Your task to perform on an android device: open app "Facebook Messenger" Image 0: 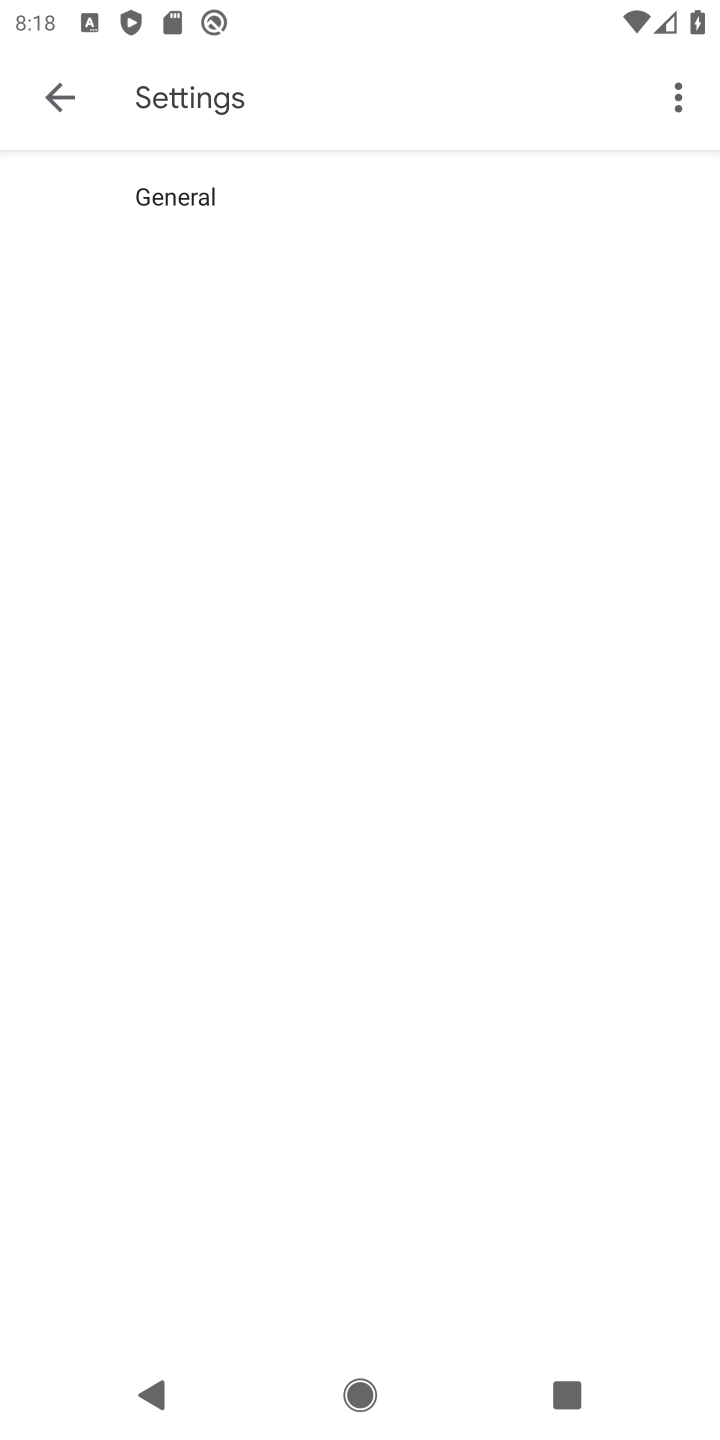
Step 0: press home button
Your task to perform on an android device: open app "Facebook Messenger" Image 1: 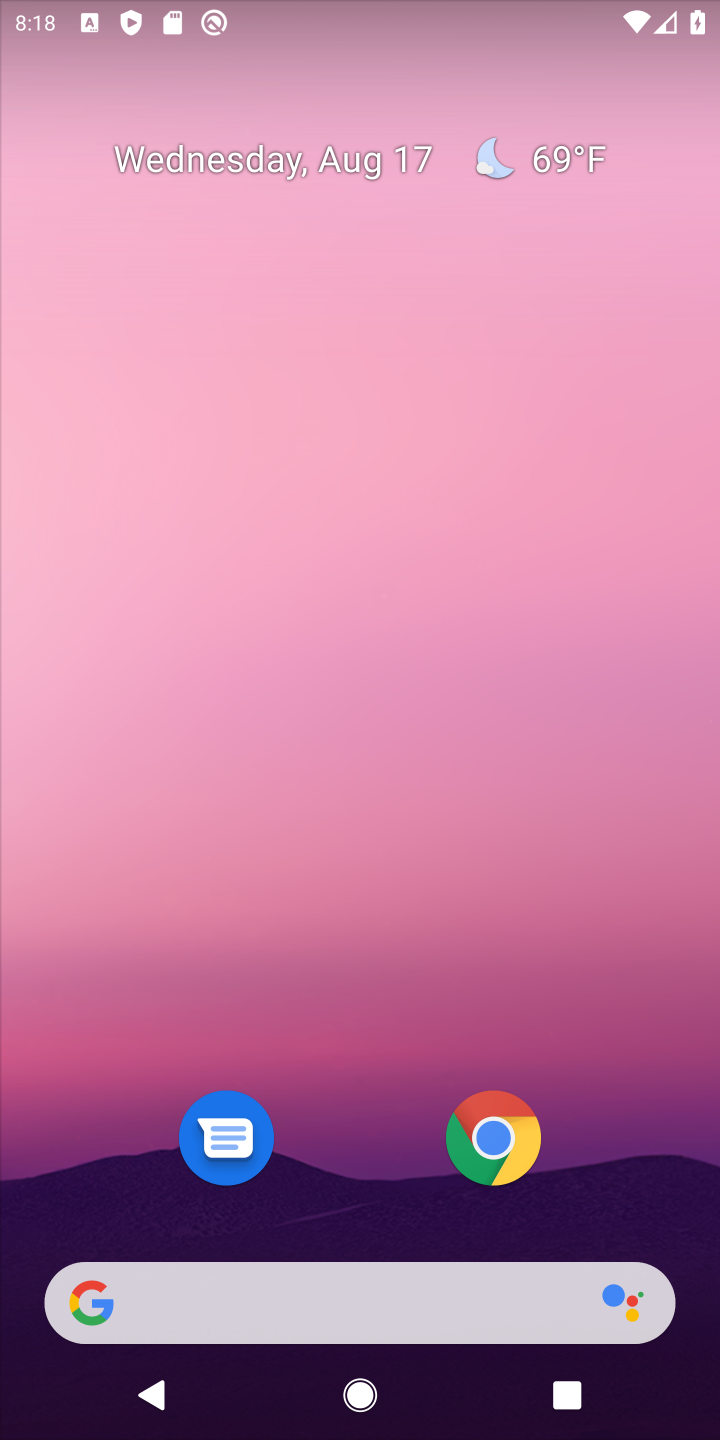
Step 1: drag from (332, 1038) to (315, 251)
Your task to perform on an android device: open app "Facebook Messenger" Image 2: 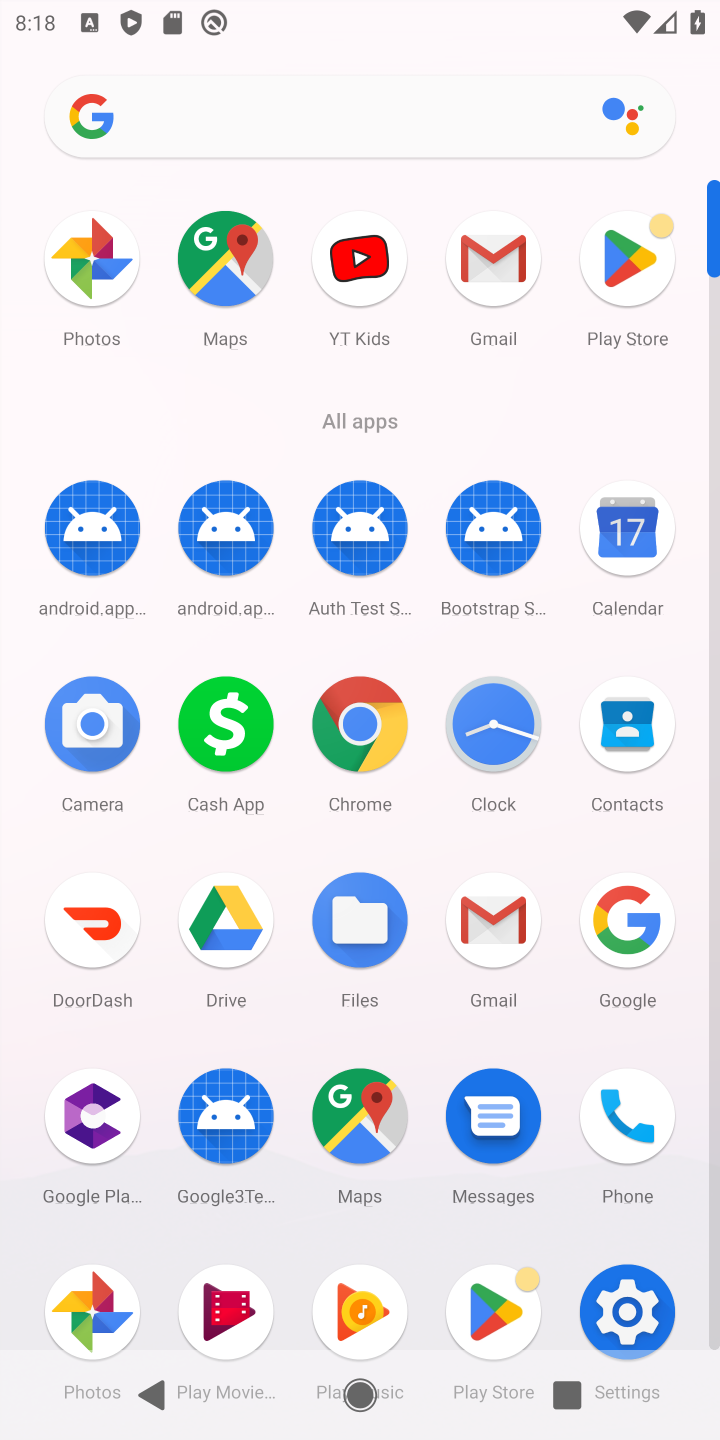
Step 2: click (639, 267)
Your task to perform on an android device: open app "Facebook Messenger" Image 3: 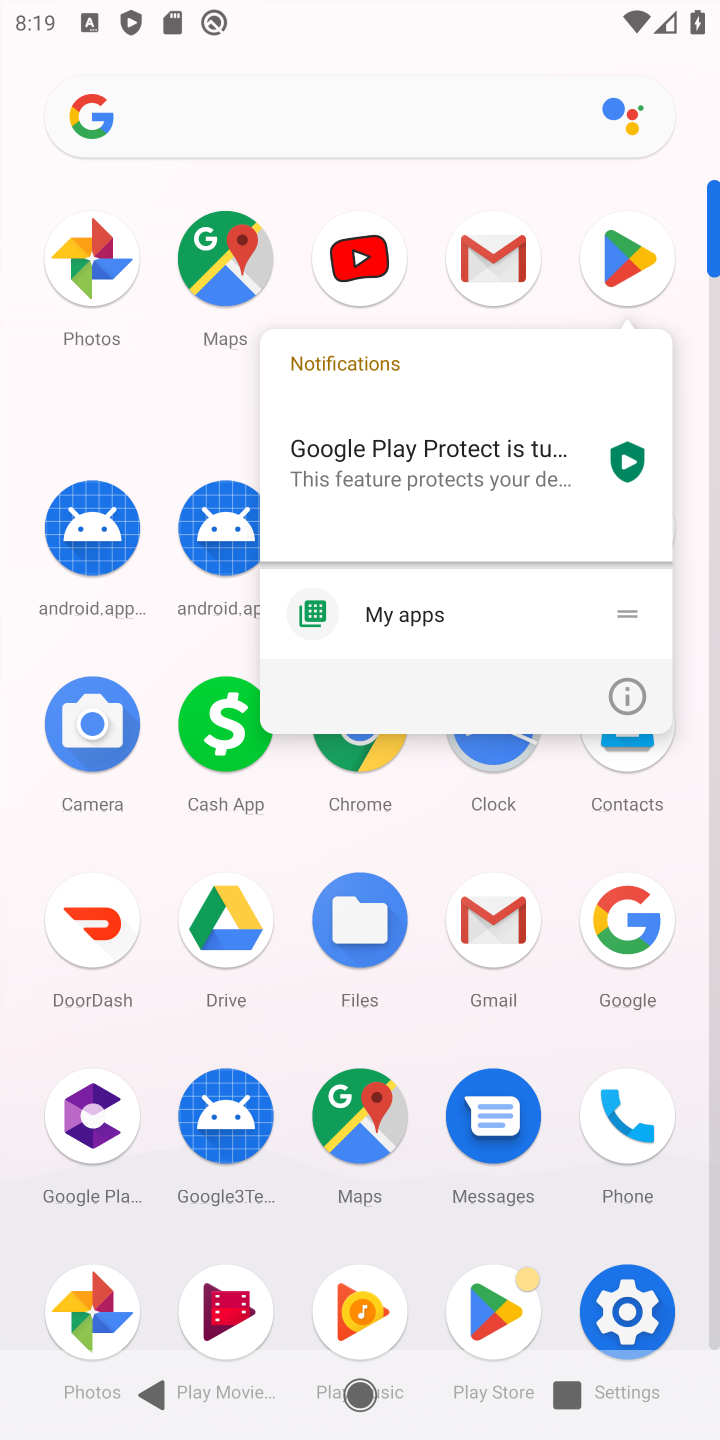
Step 3: click (619, 266)
Your task to perform on an android device: open app "Facebook Messenger" Image 4: 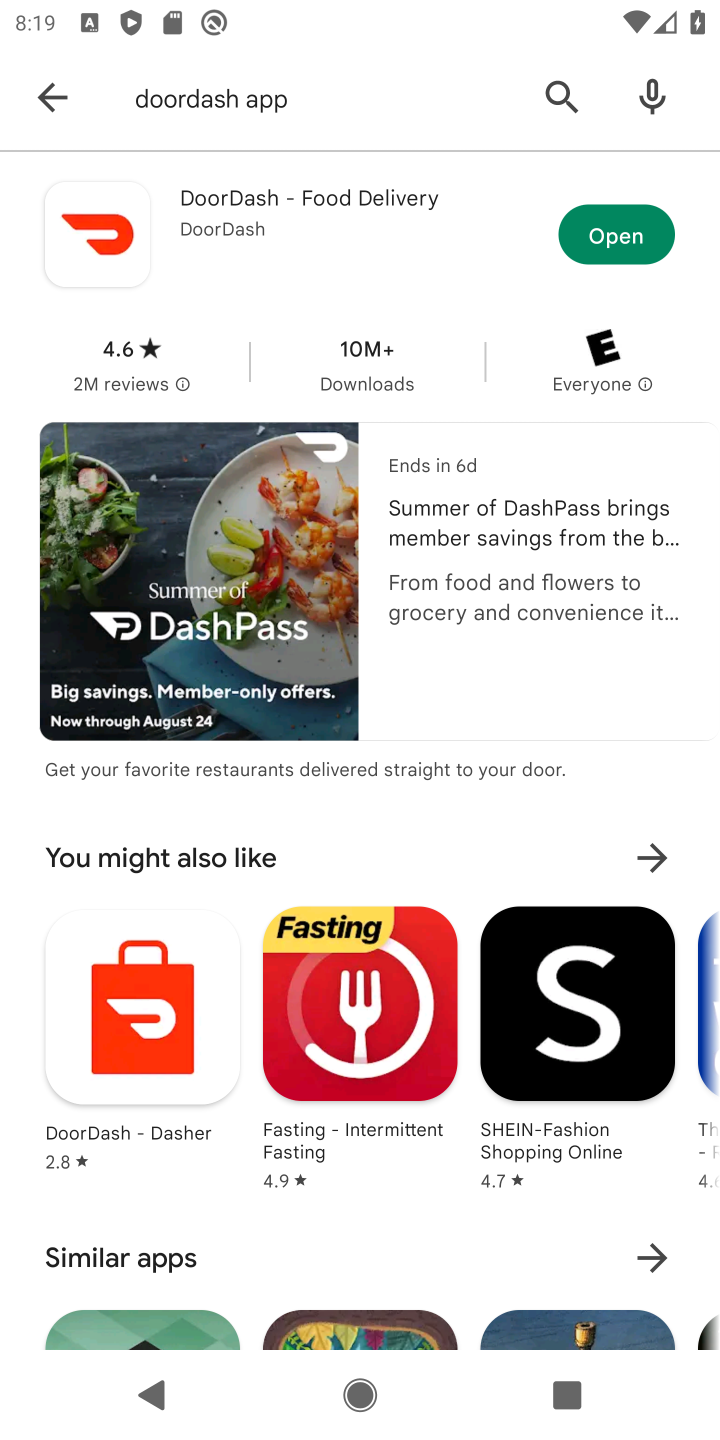
Step 4: click (67, 86)
Your task to perform on an android device: open app "Facebook Messenger" Image 5: 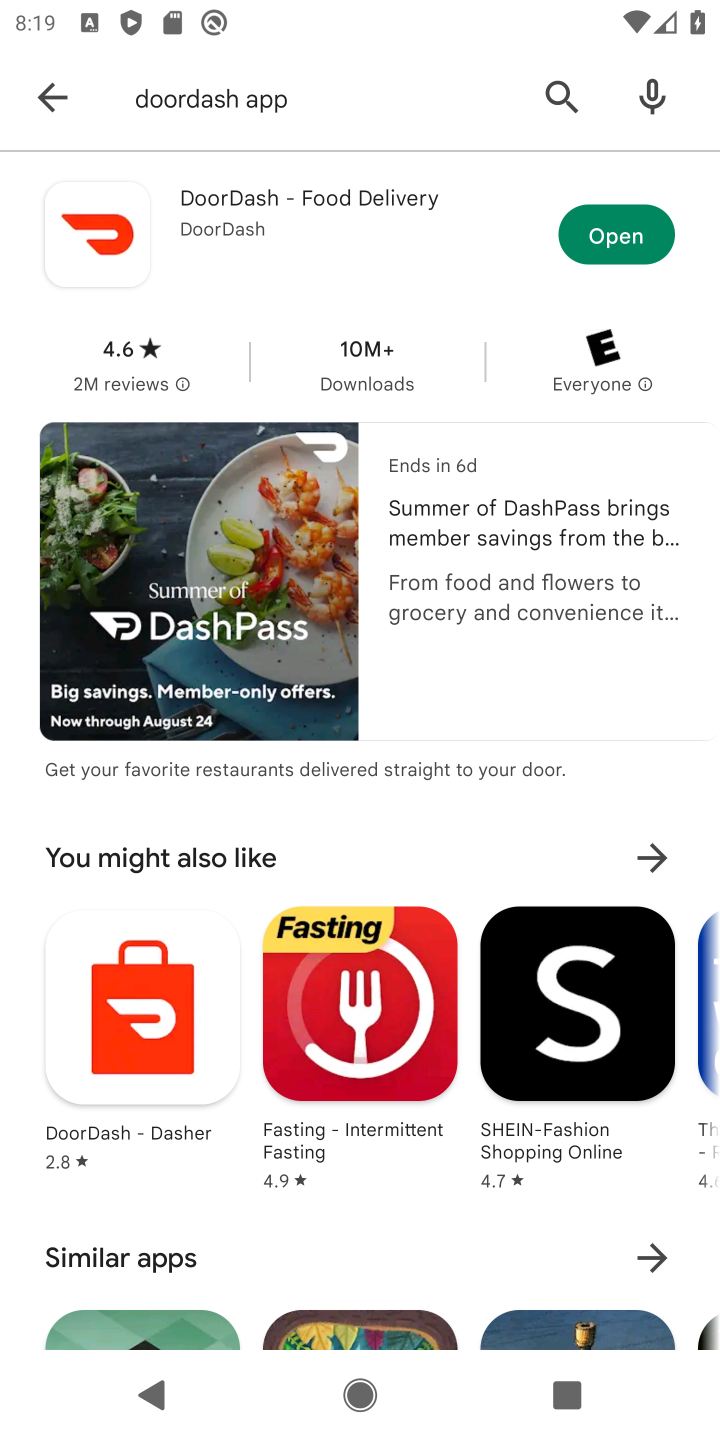
Step 5: click (40, 94)
Your task to perform on an android device: open app "Facebook Messenger" Image 6: 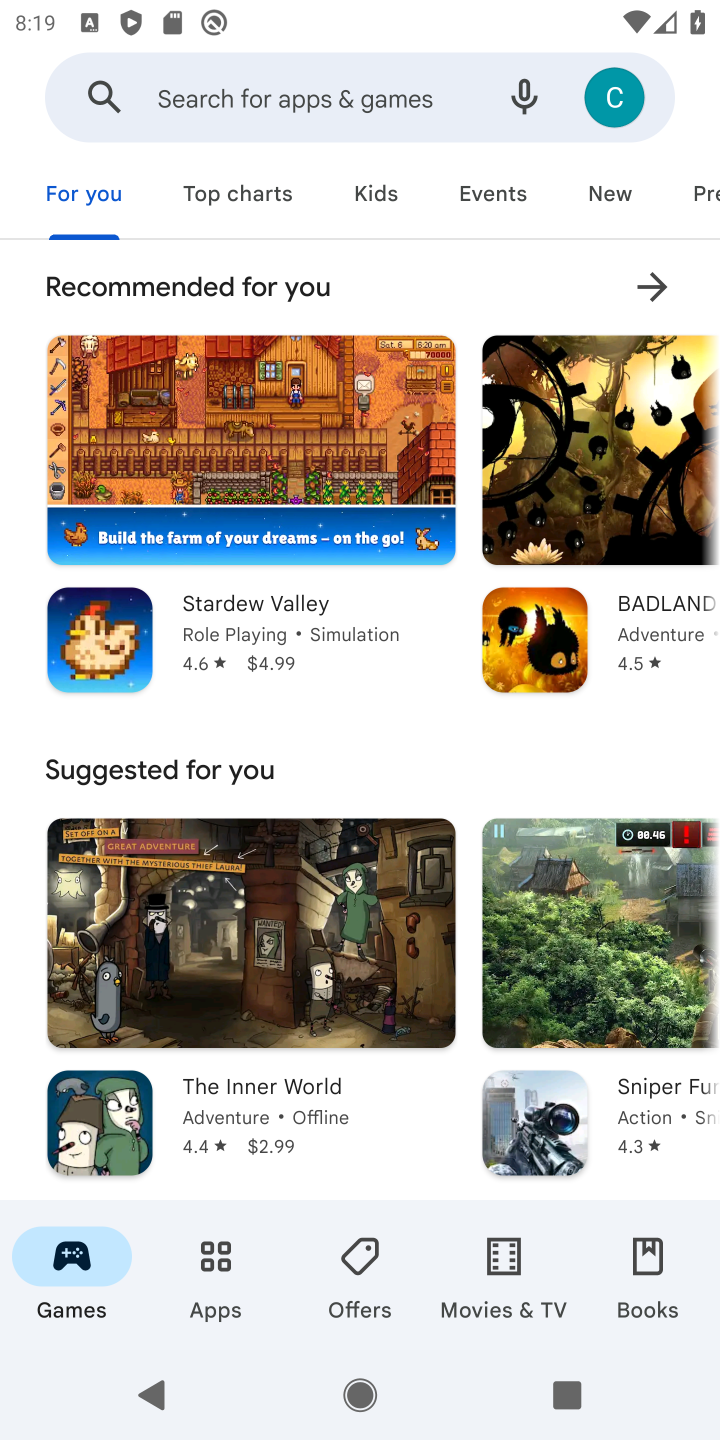
Step 6: click (334, 86)
Your task to perform on an android device: open app "Facebook Messenger" Image 7: 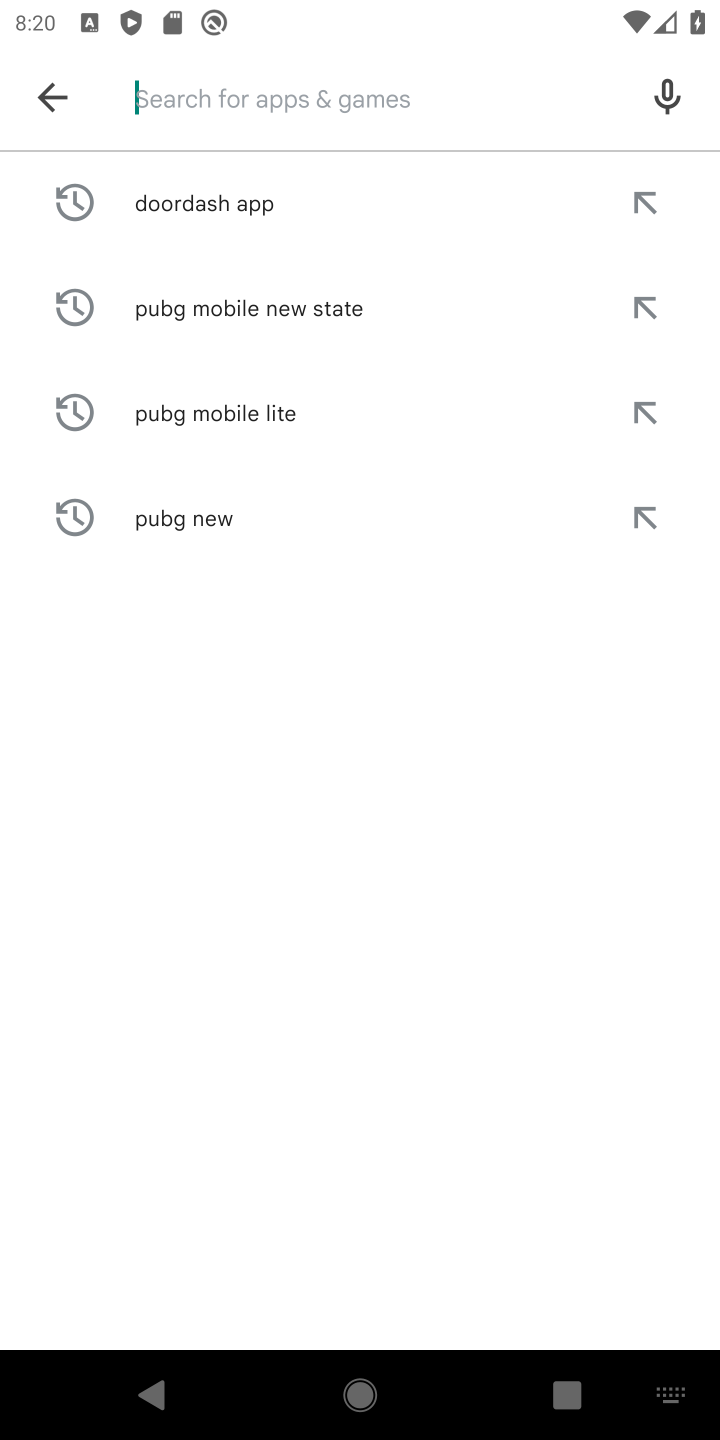
Step 7: type "Facebook Messenger "
Your task to perform on an android device: open app "Facebook Messenger" Image 8: 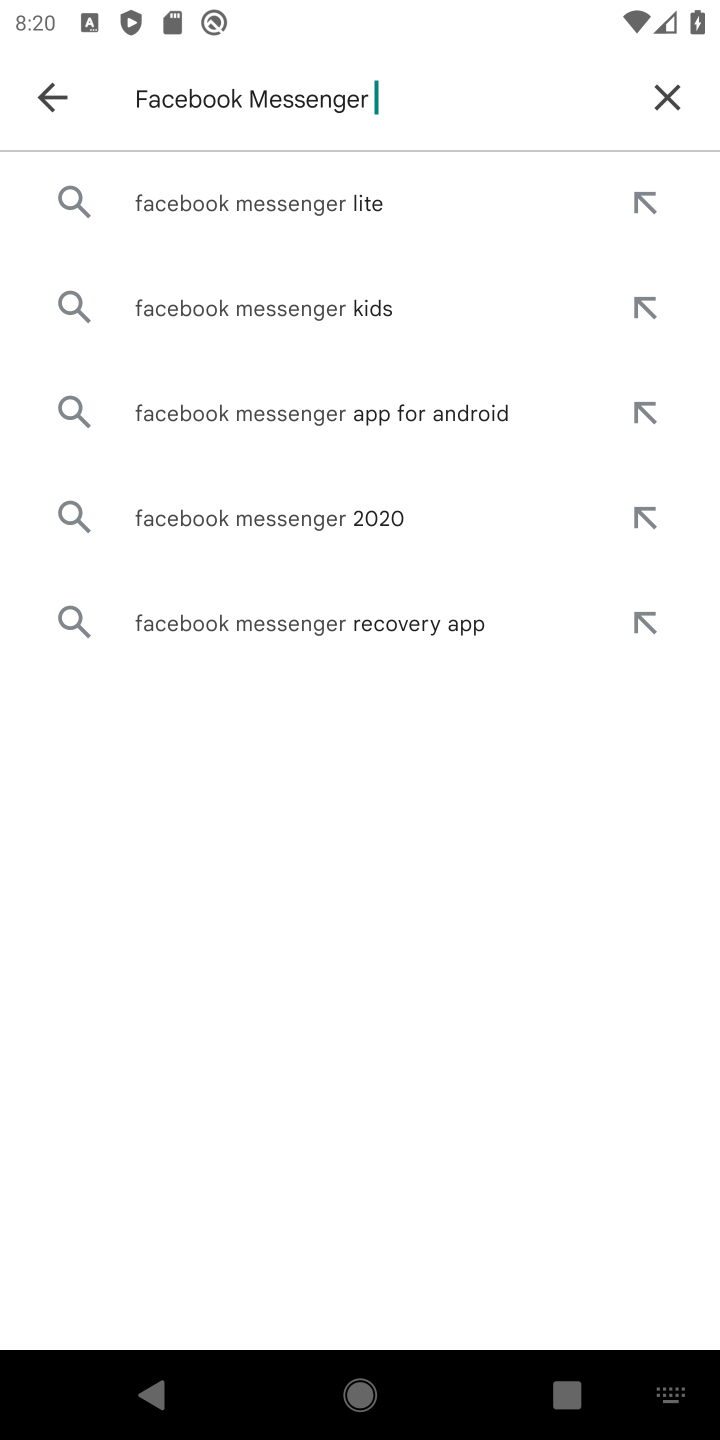
Step 8: click (244, 184)
Your task to perform on an android device: open app "Facebook Messenger" Image 9: 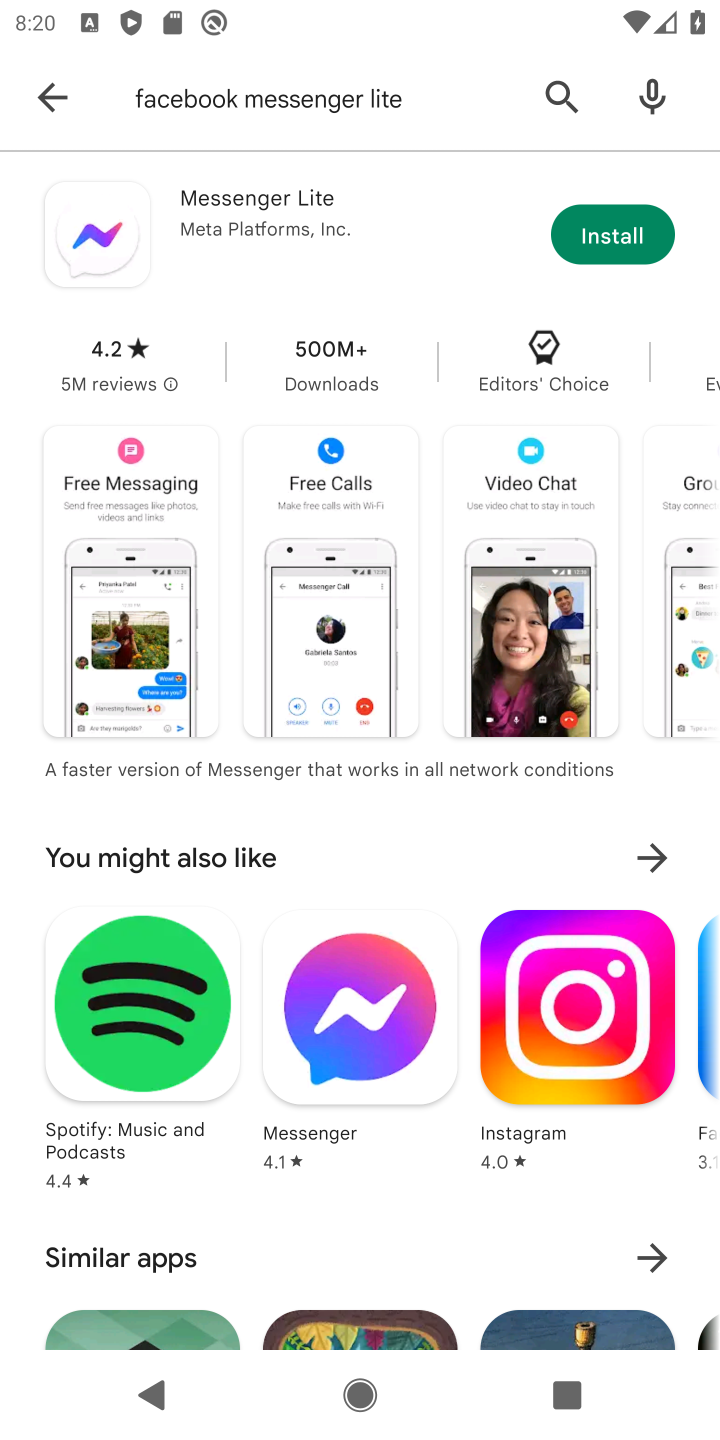
Step 9: click (617, 226)
Your task to perform on an android device: open app "Facebook Messenger" Image 10: 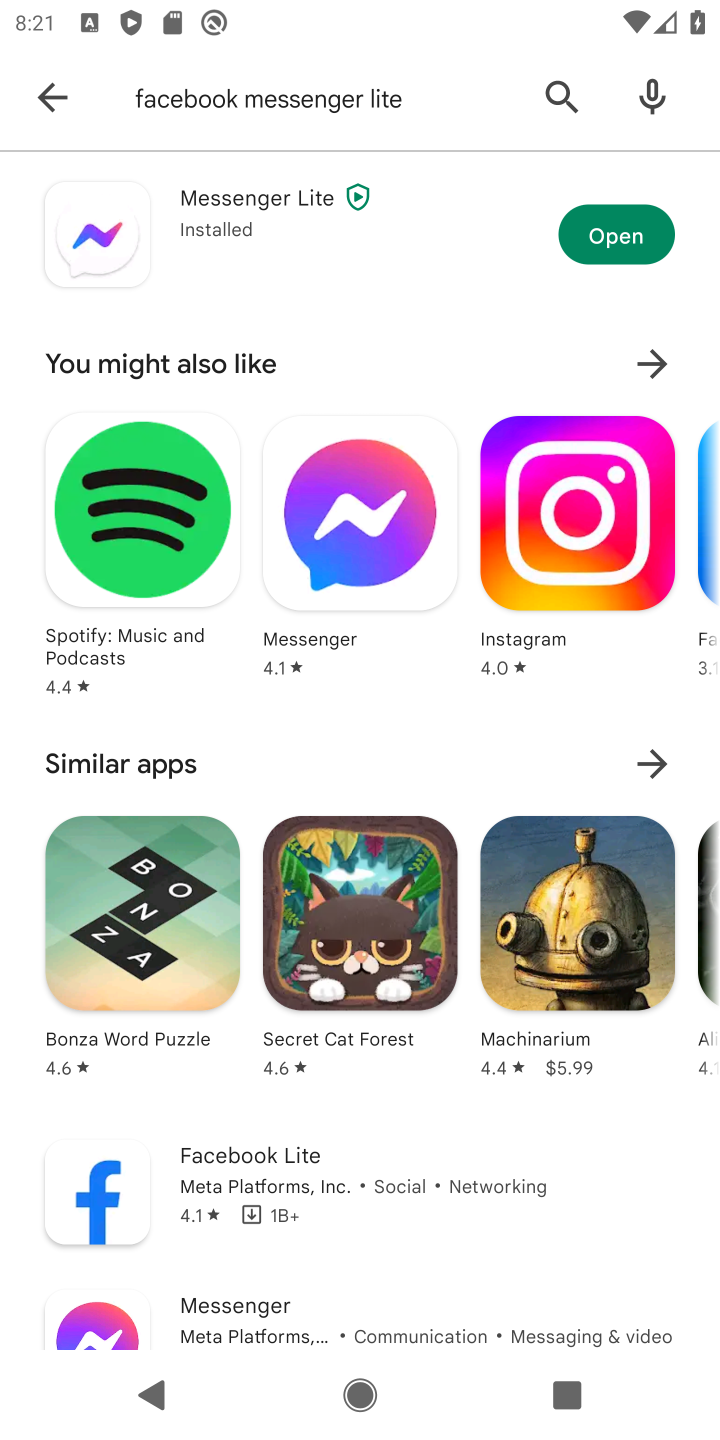
Step 10: click (615, 219)
Your task to perform on an android device: open app "Facebook Messenger" Image 11: 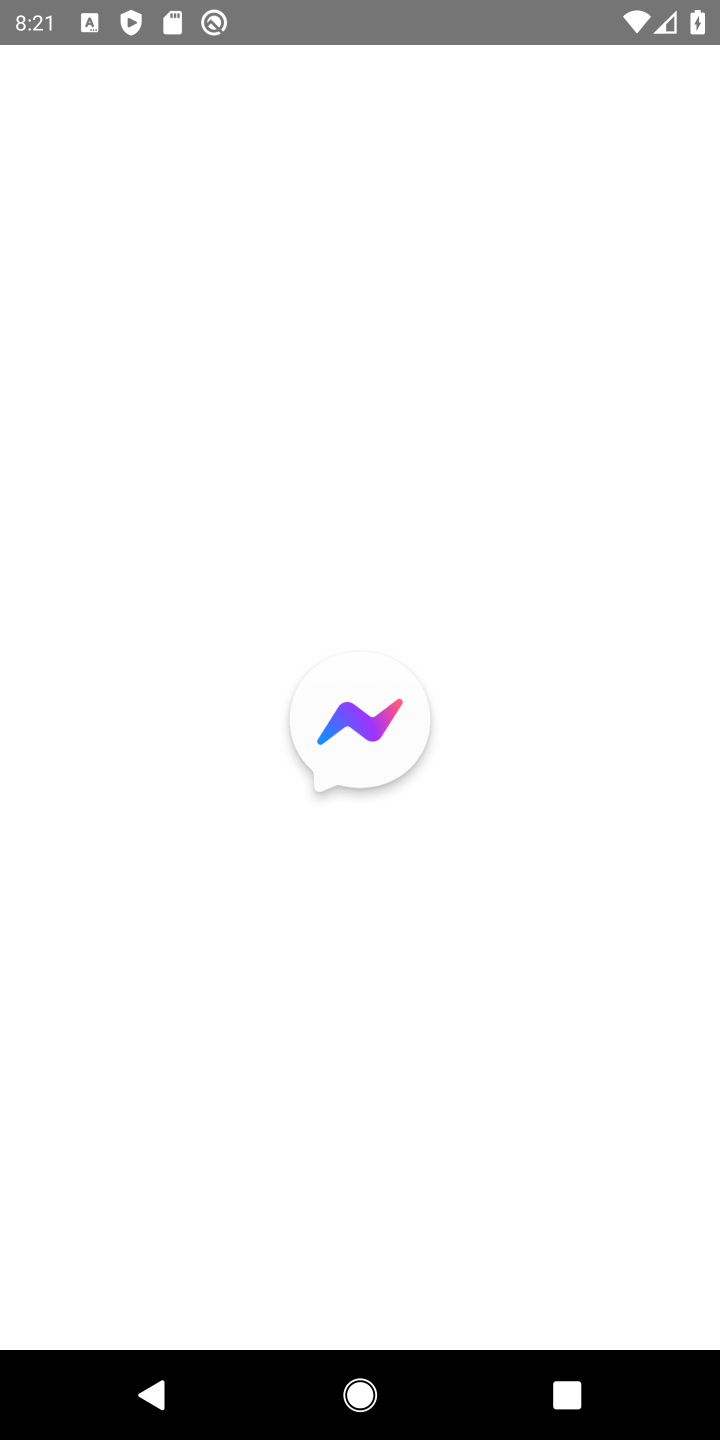
Step 11: task complete